Your task to perform on an android device: find which apps use the phone's location Image 0: 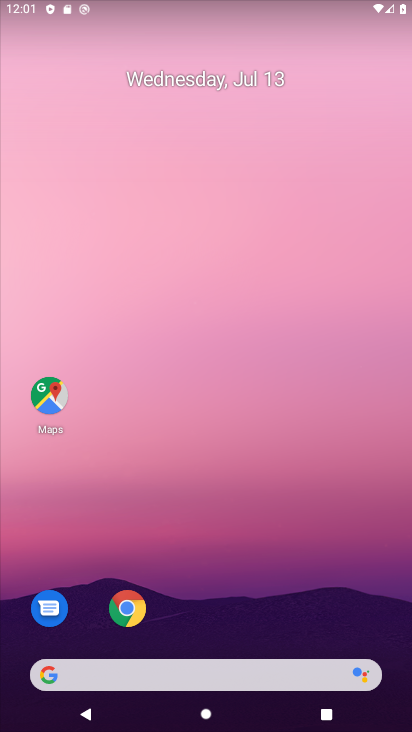
Step 0: drag from (225, 651) to (224, 14)
Your task to perform on an android device: find which apps use the phone's location Image 1: 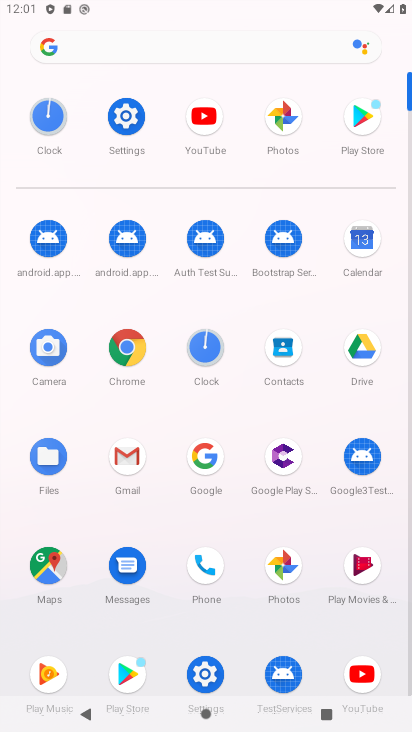
Step 1: click (136, 113)
Your task to perform on an android device: find which apps use the phone's location Image 2: 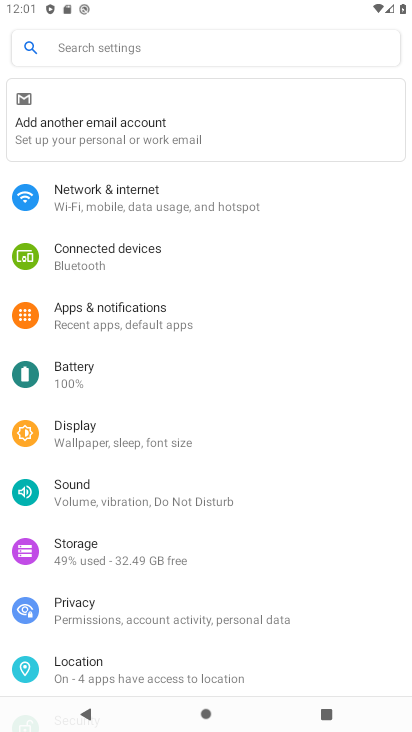
Step 2: click (80, 660)
Your task to perform on an android device: find which apps use the phone's location Image 3: 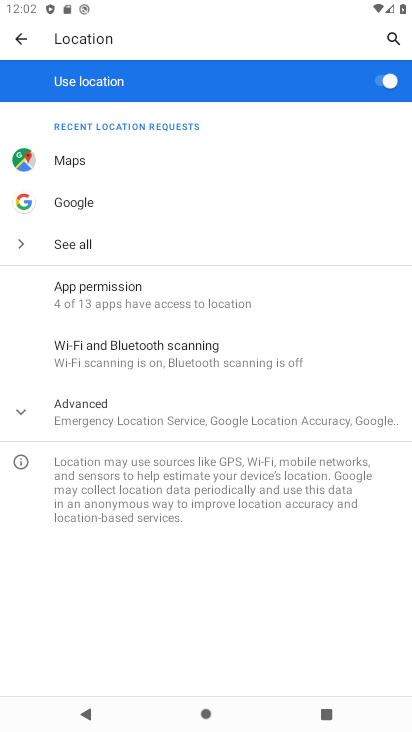
Step 3: click (231, 417)
Your task to perform on an android device: find which apps use the phone's location Image 4: 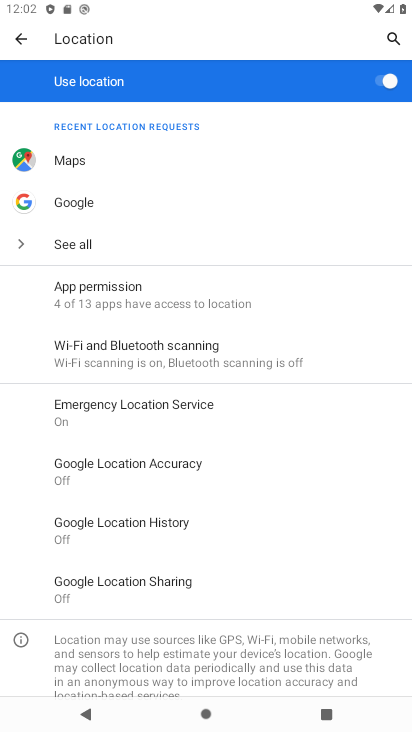
Step 4: click (132, 292)
Your task to perform on an android device: find which apps use the phone's location Image 5: 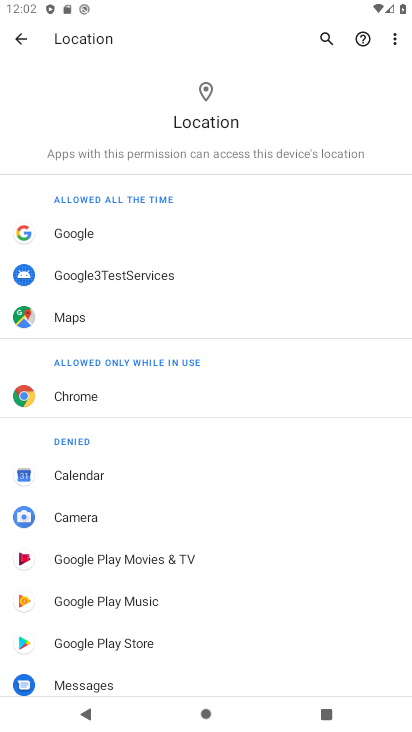
Step 5: task complete